Your task to perform on an android device: open chrome privacy settings Image 0: 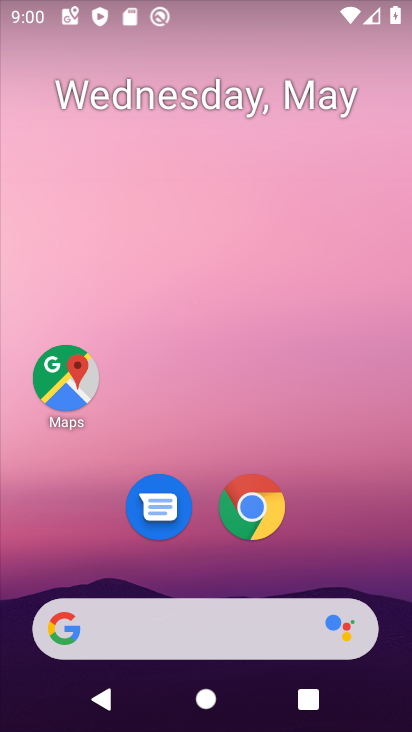
Step 0: drag from (400, 591) to (311, 150)
Your task to perform on an android device: open chrome privacy settings Image 1: 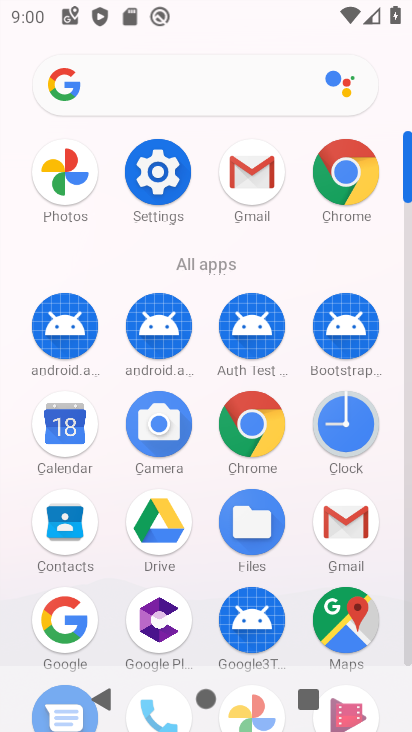
Step 1: click (355, 191)
Your task to perform on an android device: open chrome privacy settings Image 2: 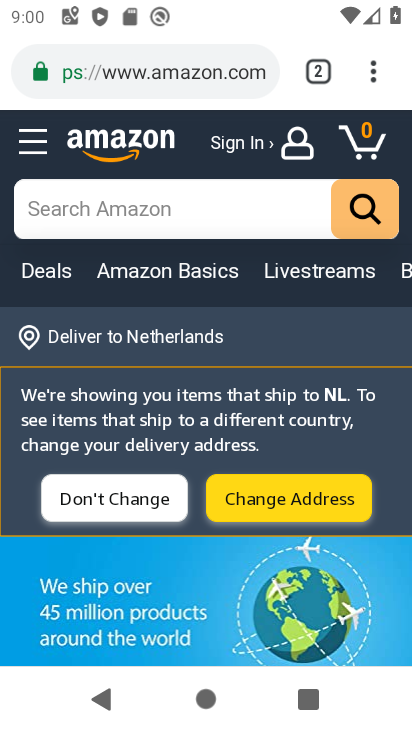
Step 2: click (384, 82)
Your task to perform on an android device: open chrome privacy settings Image 3: 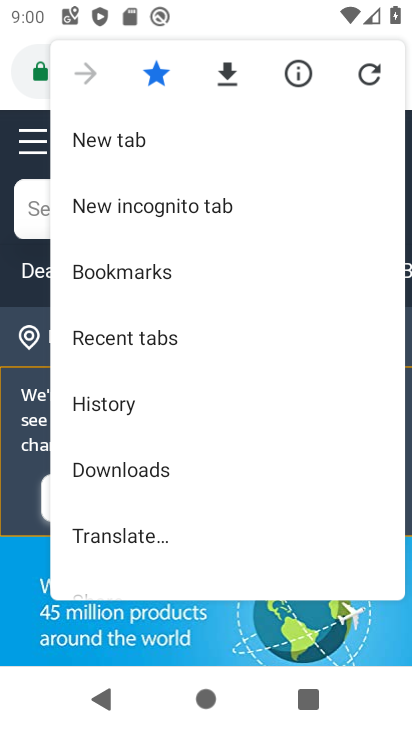
Step 3: drag from (250, 560) to (221, 114)
Your task to perform on an android device: open chrome privacy settings Image 4: 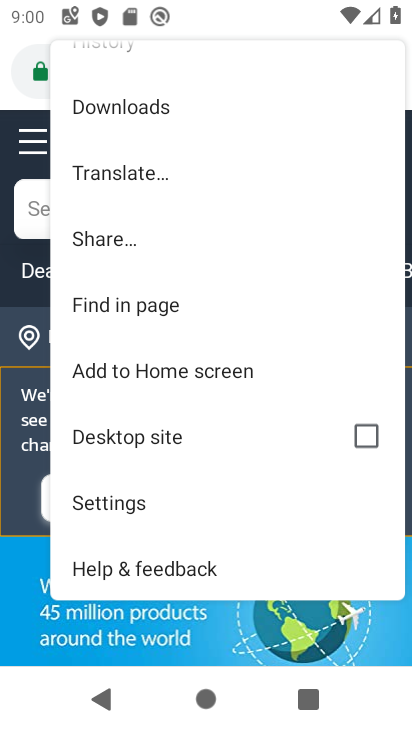
Step 4: click (185, 514)
Your task to perform on an android device: open chrome privacy settings Image 5: 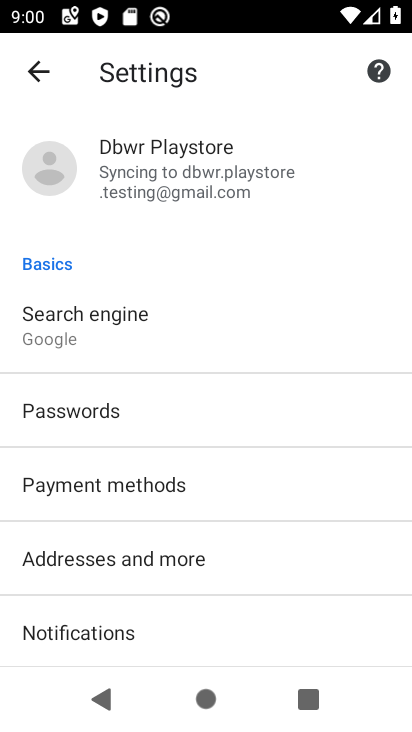
Step 5: drag from (231, 646) to (216, 114)
Your task to perform on an android device: open chrome privacy settings Image 6: 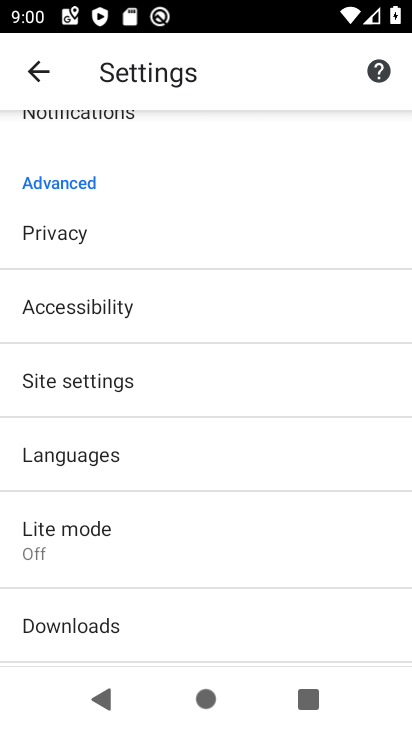
Step 6: click (145, 242)
Your task to perform on an android device: open chrome privacy settings Image 7: 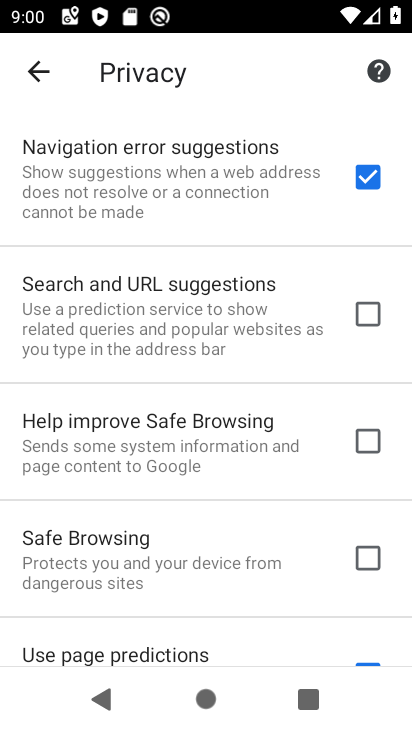
Step 7: task complete